Your task to perform on an android device: toggle pop-ups in chrome Image 0: 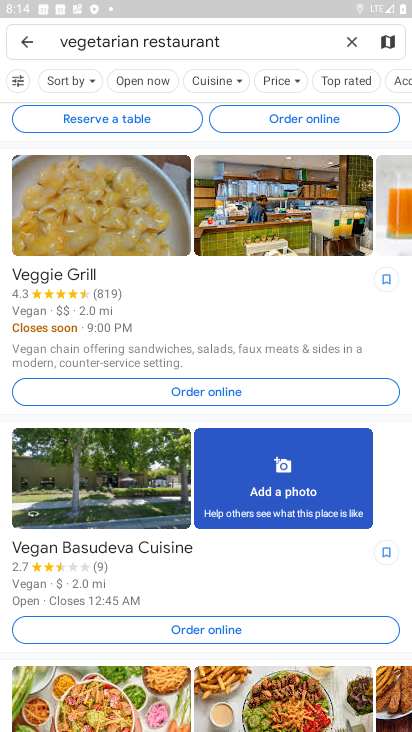
Step 0: press home button
Your task to perform on an android device: toggle pop-ups in chrome Image 1: 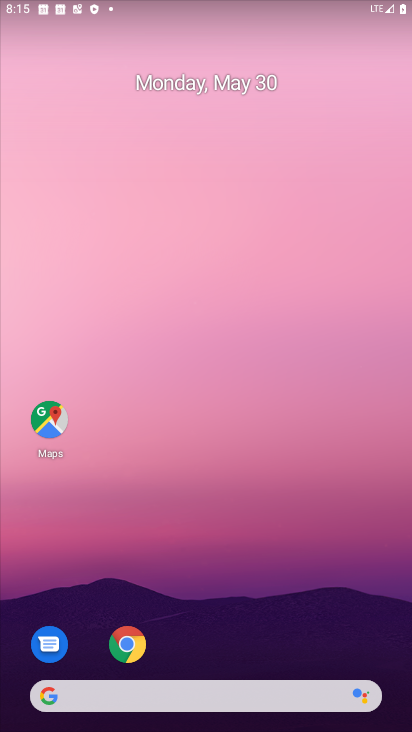
Step 1: click (127, 644)
Your task to perform on an android device: toggle pop-ups in chrome Image 2: 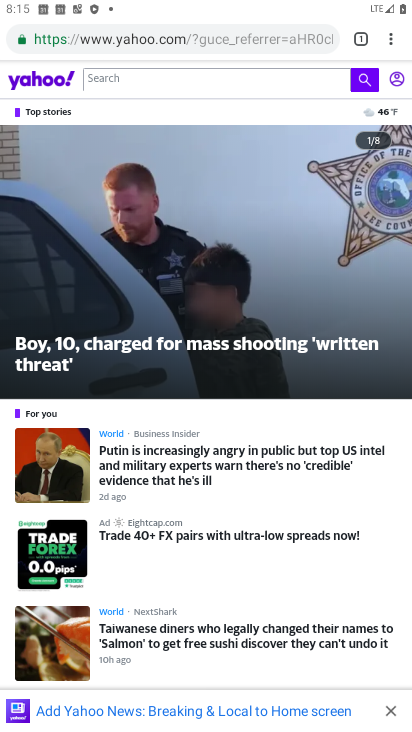
Step 2: click (392, 37)
Your task to perform on an android device: toggle pop-ups in chrome Image 3: 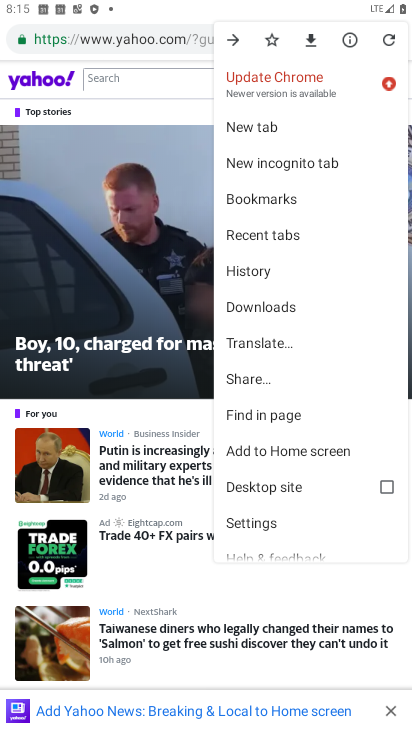
Step 3: drag from (253, 364) to (271, 258)
Your task to perform on an android device: toggle pop-ups in chrome Image 4: 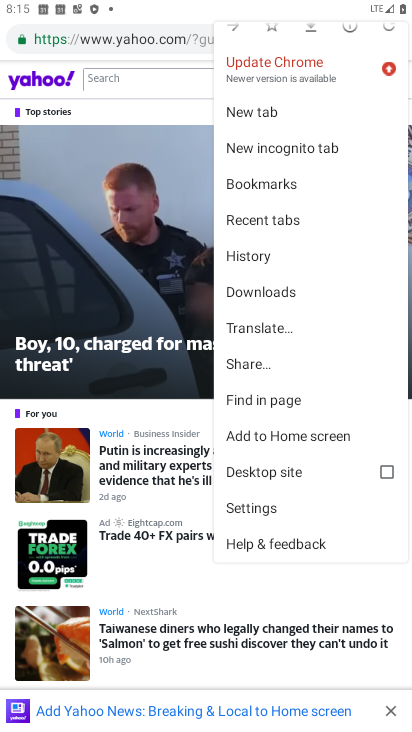
Step 4: click (273, 507)
Your task to perform on an android device: toggle pop-ups in chrome Image 5: 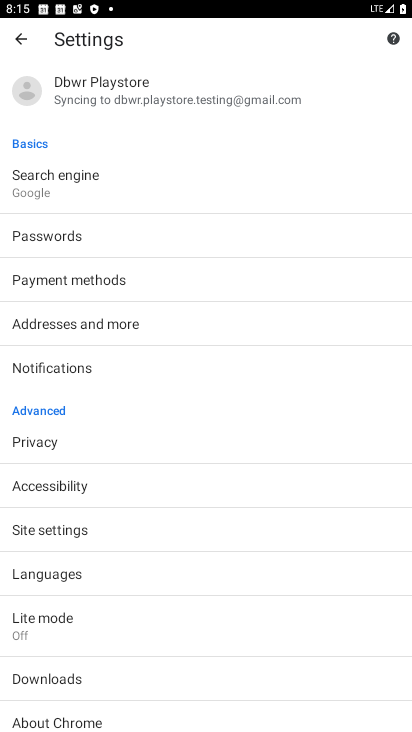
Step 5: click (80, 532)
Your task to perform on an android device: toggle pop-ups in chrome Image 6: 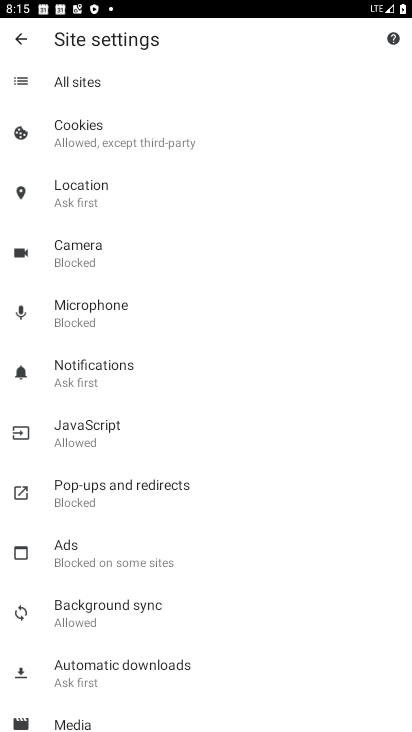
Step 6: click (106, 496)
Your task to perform on an android device: toggle pop-ups in chrome Image 7: 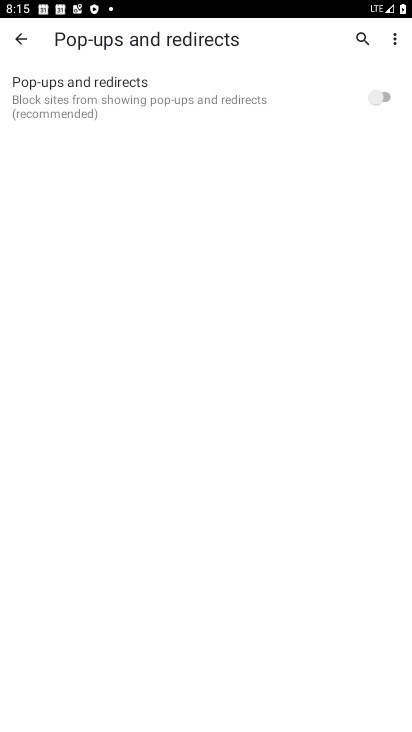
Step 7: click (374, 93)
Your task to perform on an android device: toggle pop-ups in chrome Image 8: 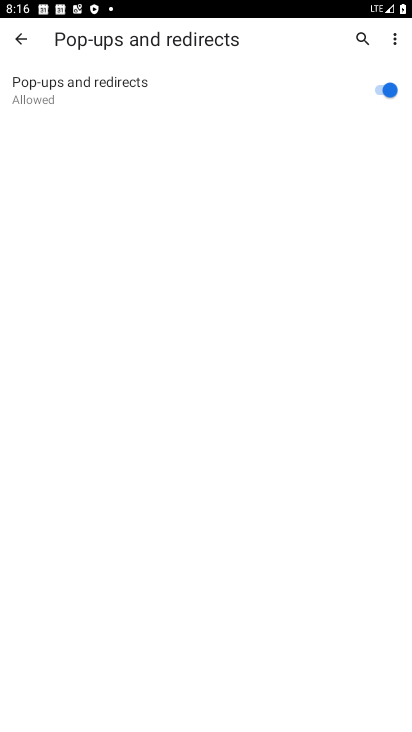
Step 8: task complete